Your task to perform on an android device: delete browsing data in the chrome app Image 0: 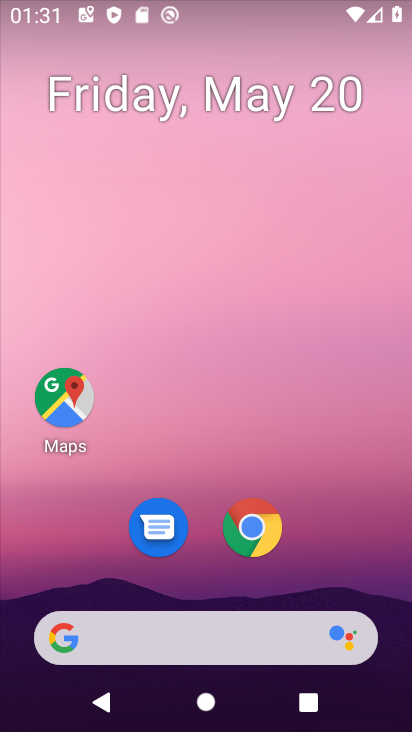
Step 0: press home button
Your task to perform on an android device: delete browsing data in the chrome app Image 1: 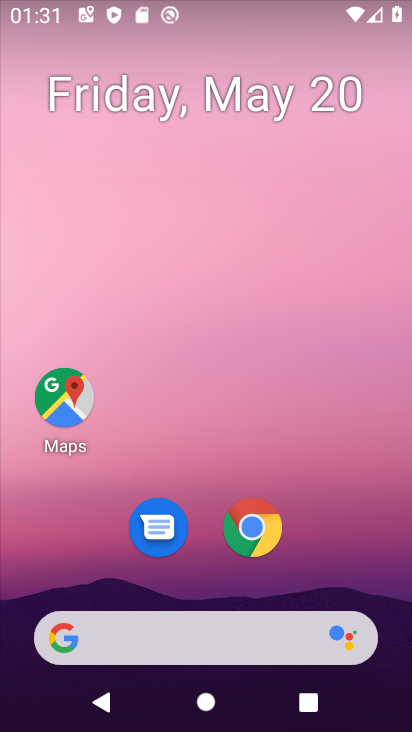
Step 1: click (259, 535)
Your task to perform on an android device: delete browsing data in the chrome app Image 2: 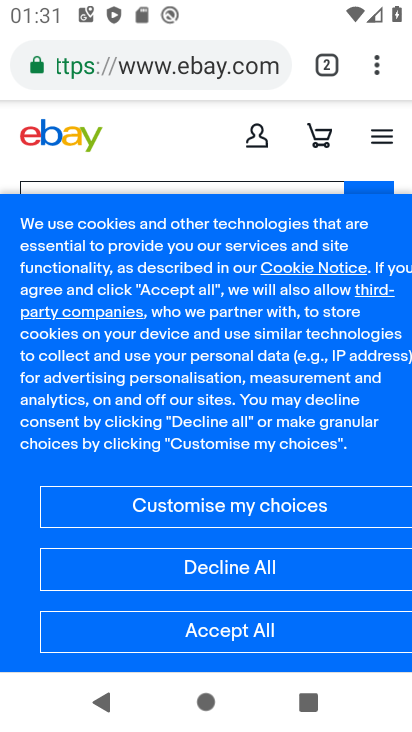
Step 2: drag from (379, 70) to (243, 586)
Your task to perform on an android device: delete browsing data in the chrome app Image 3: 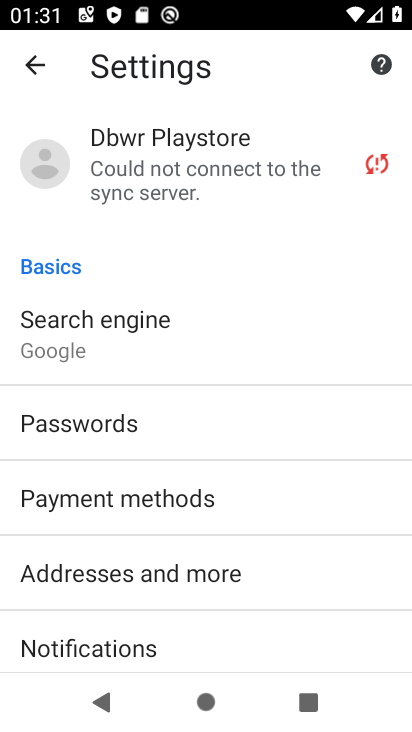
Step 3: drag from (216, 626) to (330, 284)
Your task to perform on an android device: delete browsing data in the chrome app Image 4: 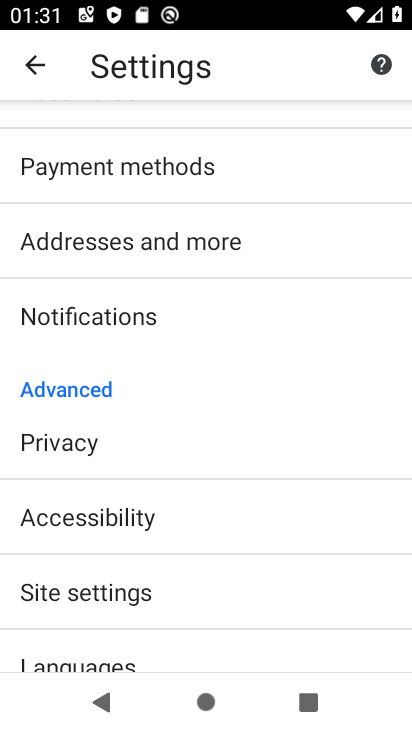
Step 4: click (84, 452)
Your task to perform on an android device: delete browsing data in the chrome app Image 5: 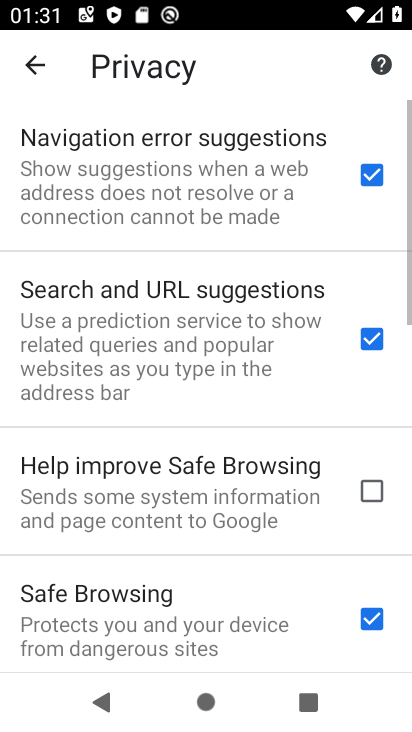
Step 5: drag from (173, 629) to (381, 28)
Your task to perform on an android device: delete browsing data in the chrome app Image 6: 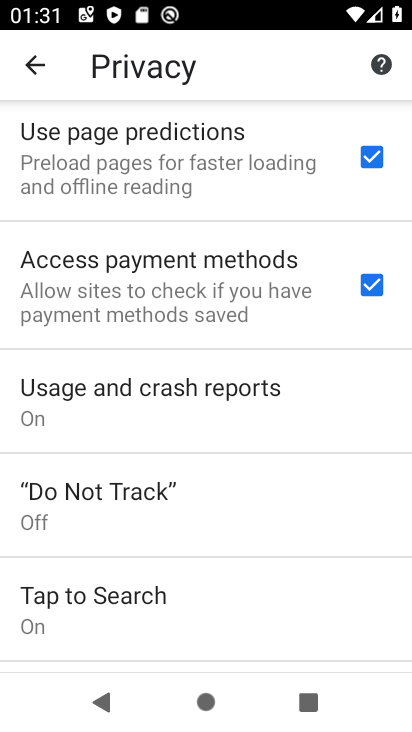
Step 6: drag from (200, 592) to (341, 90)
Your task to perform on an android device: delete browsing data in the chrome app Image 7: 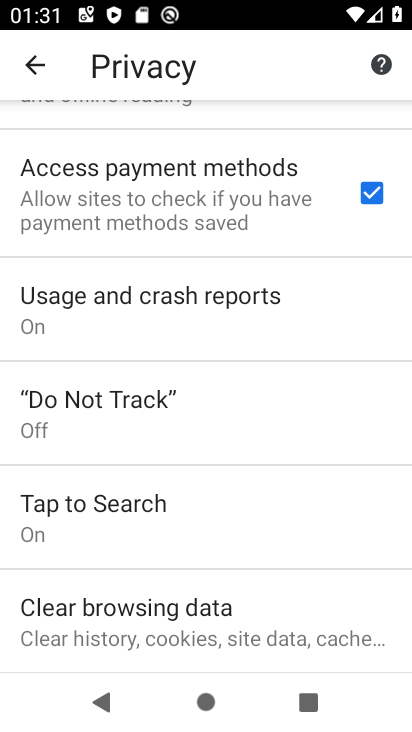
Step 7: click (210, 604)
Your task to perform on an android device: delete browsing data in the chrome app Image 8: 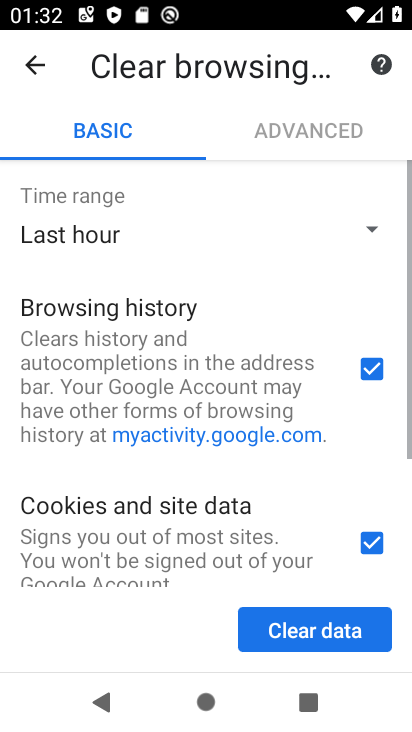
Step 8: drag from (236, 526) to (397, 125)
Your task to perform on an android device: delete browsing data in the chrome app Image 9: 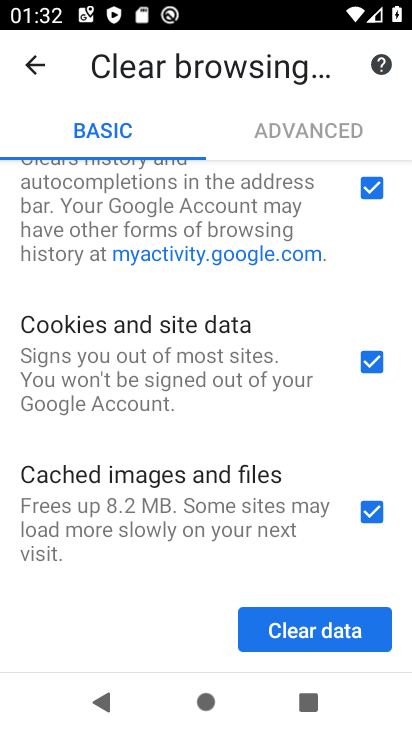
Step 9: click (329, 639)
Your task to perform on an android device: delete browsing data in the chrome app Image 10: 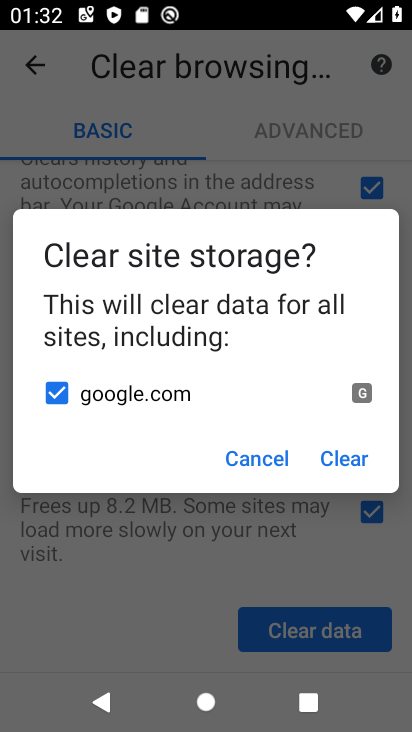
Step 10: click (356, 461)
Your task to perform on an android device: delete browsing data in the chrome app Image 11: 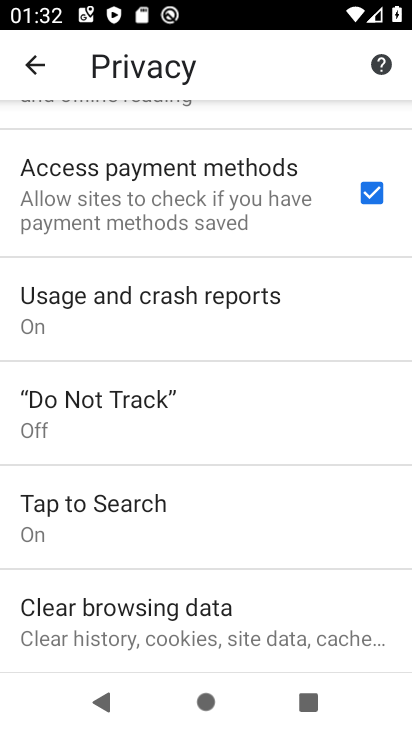
Step 11: task complete